Your task to perform on an android device: Open the calendar app, open the side menu, and click the "Day" option Image 0: 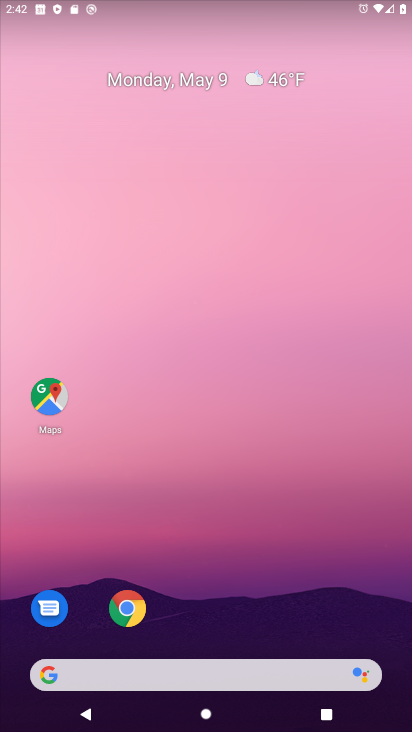
Step 0: drag from (120, 642) to (209, 253)
Your task to perform on an android device: Open the calendar app, open the side menu, and click the "Day" option Image 1: 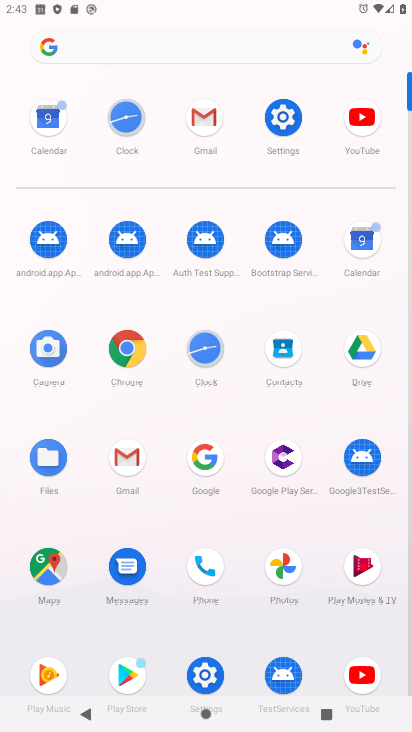
Step 1: click (361, 246)
Your task to perform on an android device: Open the calendar app, open the side menu, and click the "Day" option Image 2: 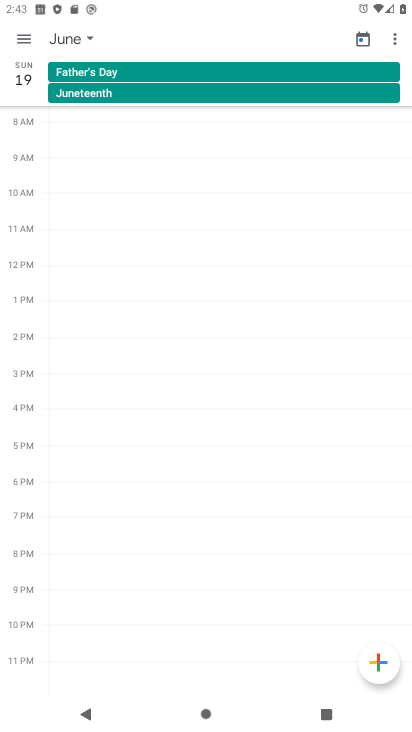
Step 2: click (23, 43)
Your task to perform on an android device: Open the calendar app, open the side menu, and click the "Day" option Image 3: 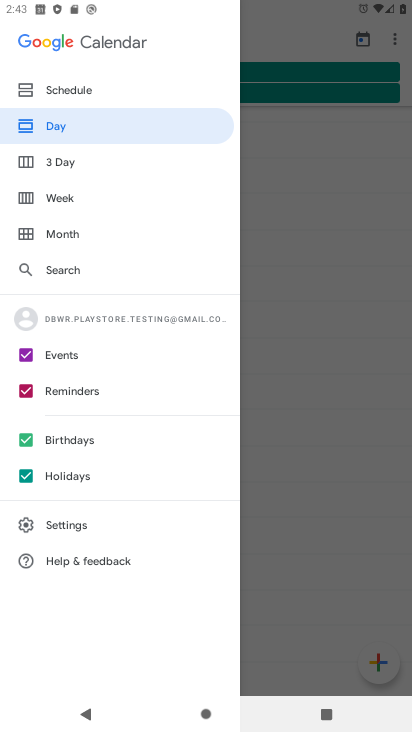
Step 3: click (88, 131)
Your task to perform on an android device: Open the calendar app, open the side menu, and click the "Day" option Image 4: 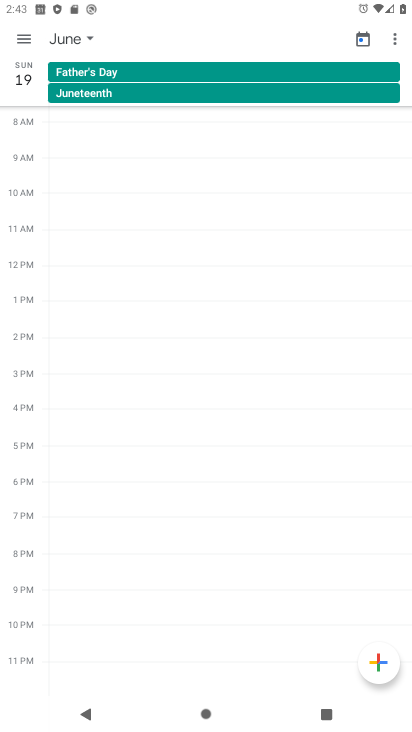
Step 4: task complete